Your task to perform on an android device: move an email to a new category in the gmail app Image 0: 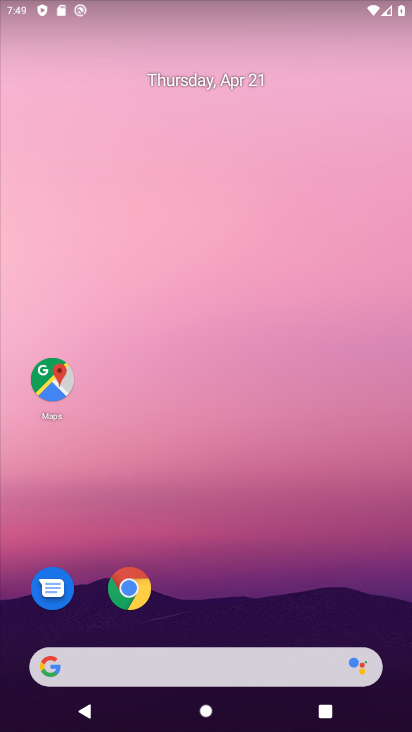
Step 0: drag from (219, 618) to (298, 174)
Your task to perform on an android device: move an email to a new category in the gmail app Image 1: 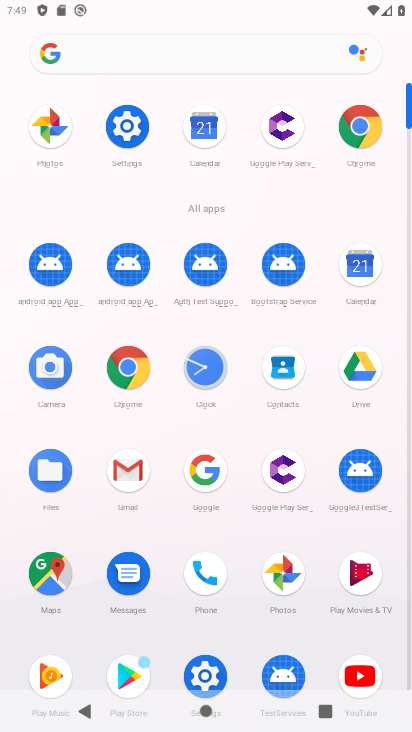
Step 1: click (141, 486)
Your task to perform on an android device: move an email to a new category in the gmail app Image 2: 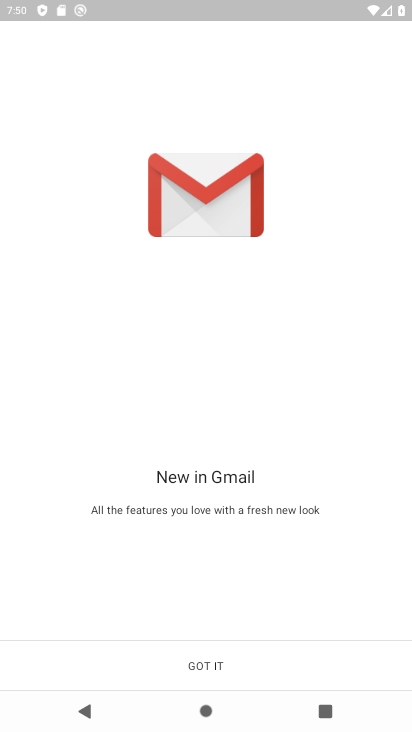
Step 2: click (215, 661)
Your task to perform on an android device: move an email to a new category in the gmail app Image 3: 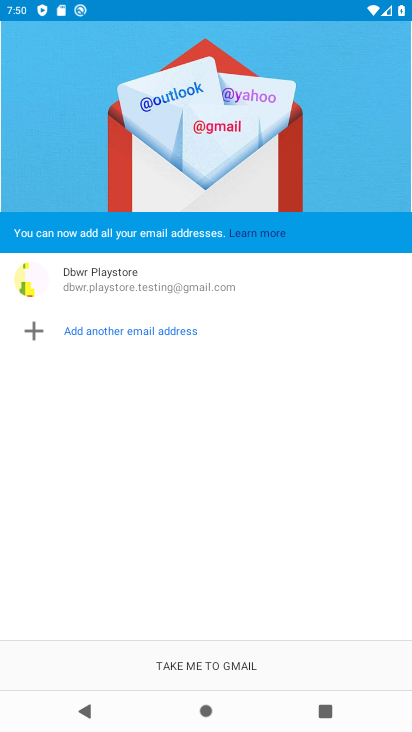
Step 3: click (215, 661)
Your task to perform on an android device: move an email to a new category in the gmail app Image 4: 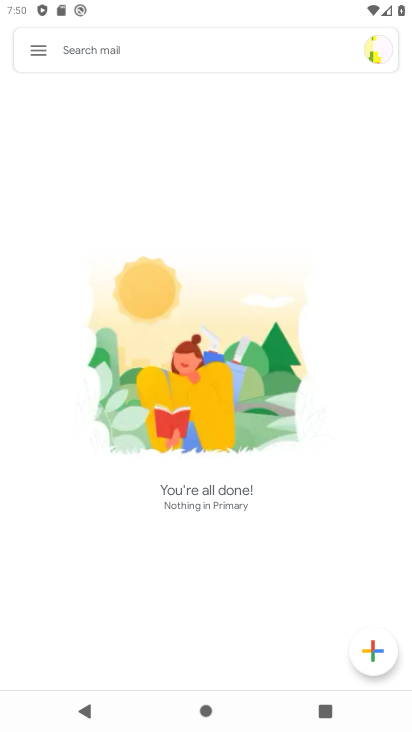
Step 4: click (42, 52)
Your task to perform on an android device: move an email to a new category in the gmail app Image 5: 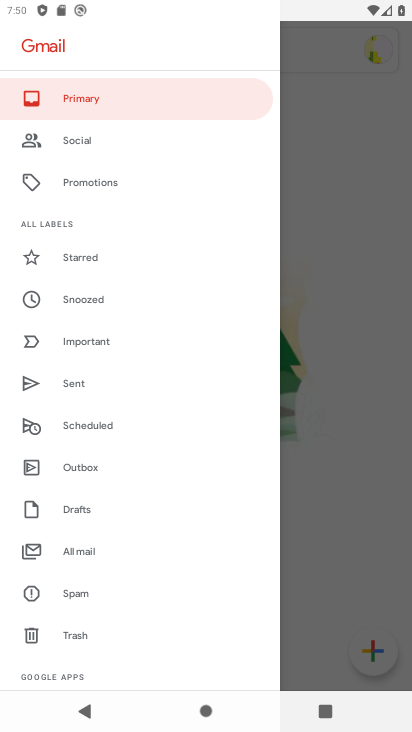
Step 5: click (120, 545)
Your task to perform on an android device: move an email to a new category in the gmail app Image 6: 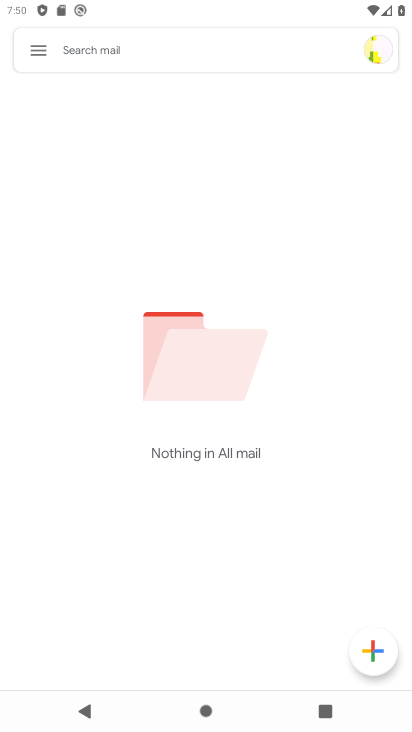
Step 6: task complete